Your task to perform on an android device: Go to Wikipedia Image 0: 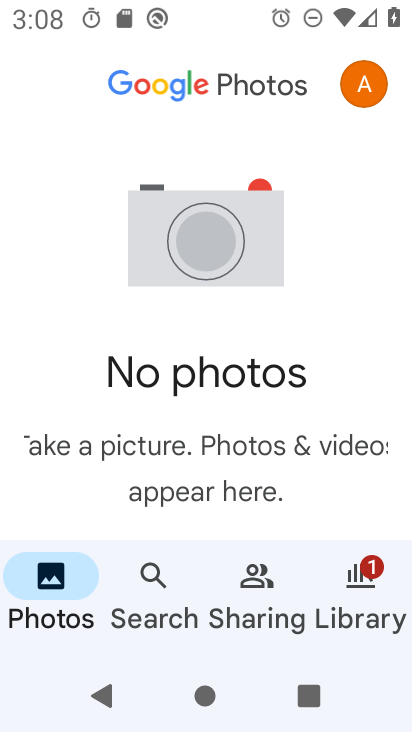
Step 0: press home button
Your task to perform on an android device: Go to Wikipedia Image 1: 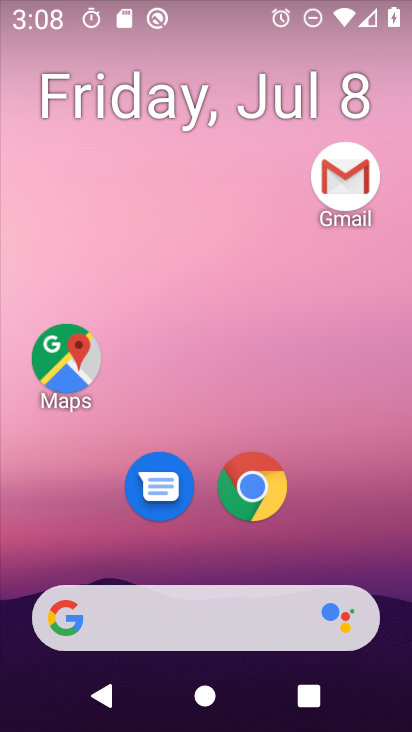
Step 1: drag from (362, 512) to (352, 73)
Your task to perform on an android device: Go to Wikipedia Image 2: 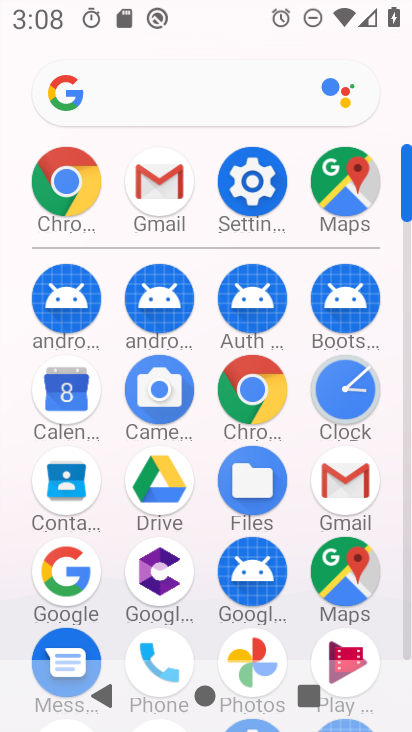
Step 2: click (258, 393)
Your task to perform on an android device: Go to Wikipedia Image 3: 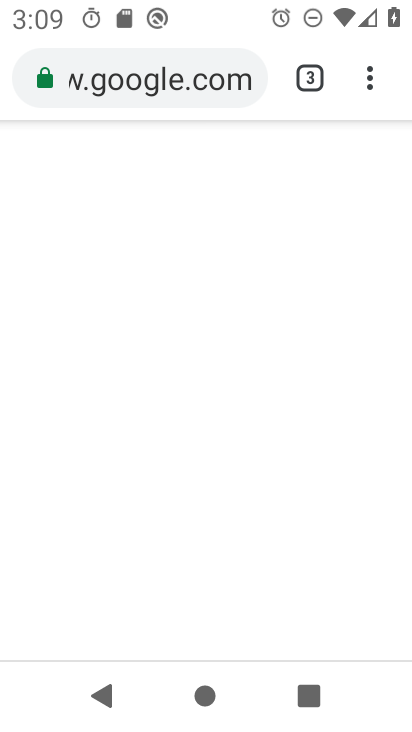
Step 3: click (197, 85)
Your task to perform on an android device: Go to Wikipedia Image 4: 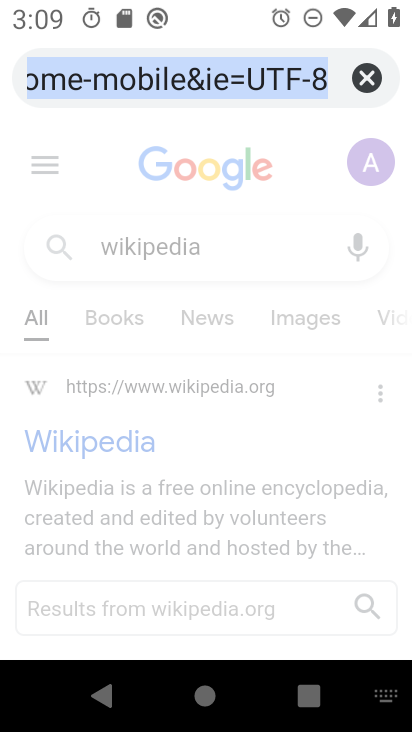
Step 4: type "wikipedia"
Your task to perform on an android device: Go to Wikipedia Image 5: 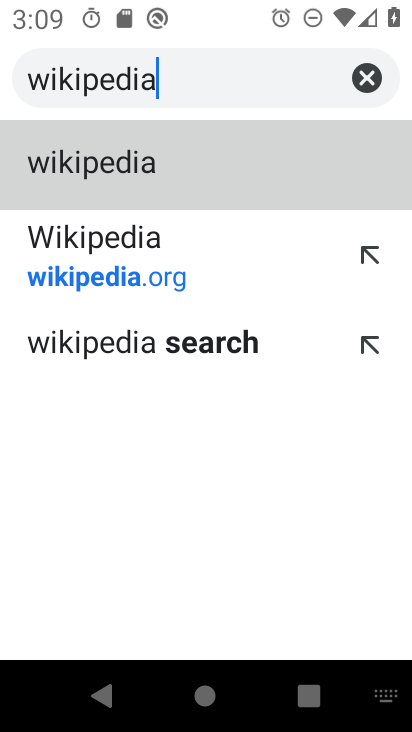
Step 5: click (172, 164)
Your task to perform on an android device: Go to Wikipedia Image 6: 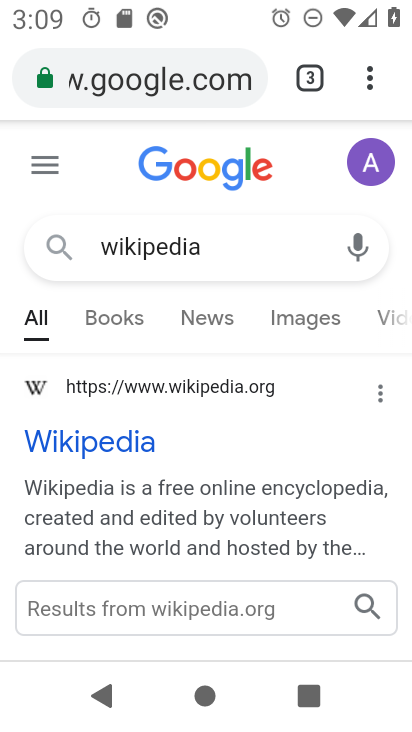
Step 6: task complete